Your task to perform on an android device: Show me popular games on the Play Store Image 0: 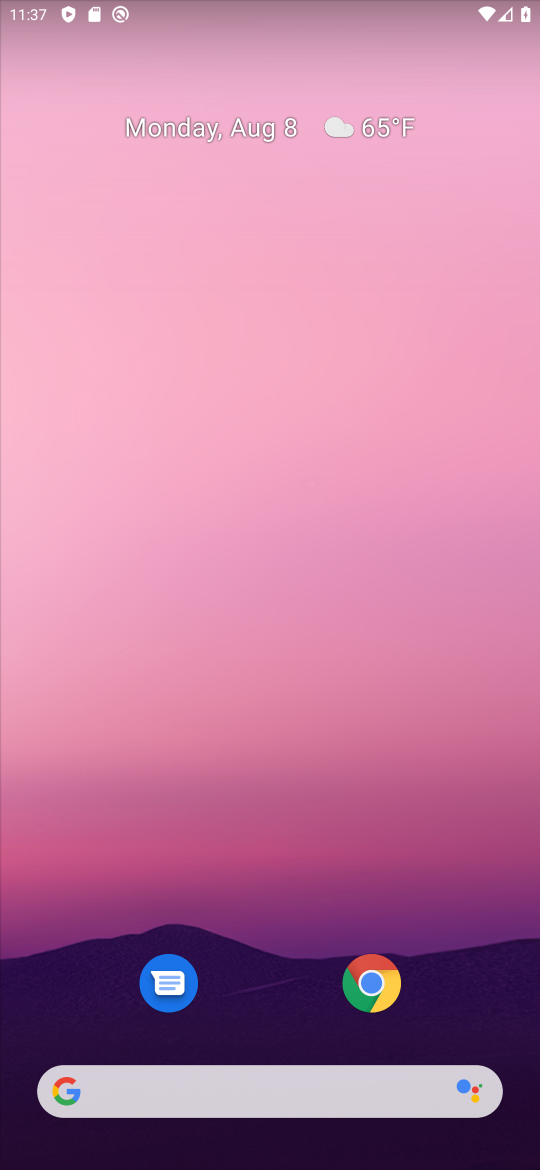
Step 0: task complete